Your task to perform on an android device: Search for a new lawnmower on Lowes. Image 0: 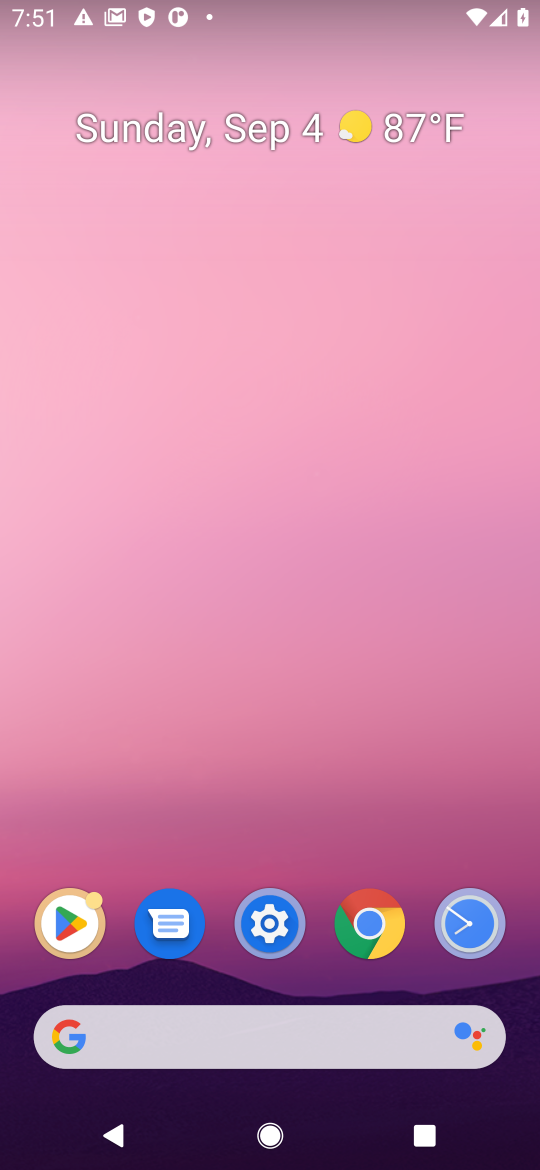
Step 0: press home button
Your task to perform on an android device: Search for a new lawnmower on Lowes. Image 1: 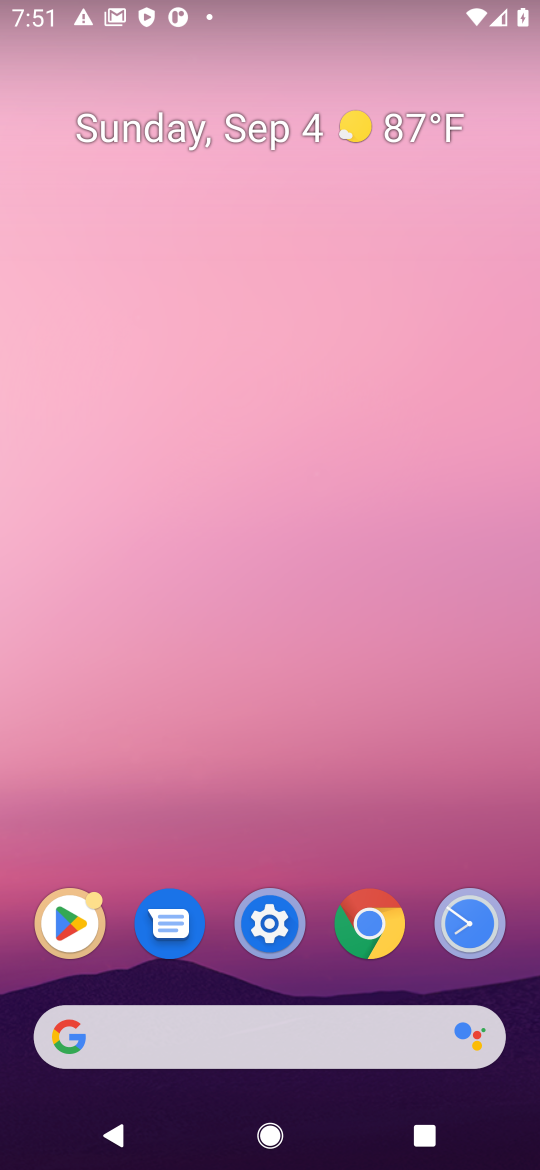
Step 1: click (420, 1027)
Your task to perform on an android device: Search for a new lawnmower on Lowes. Image 2: 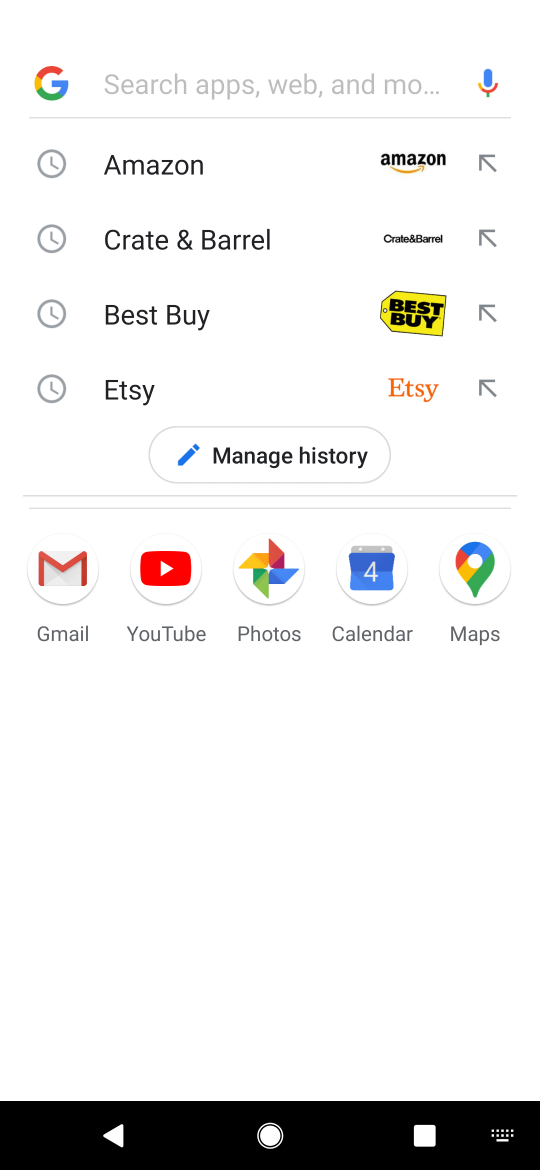
Step 2: press enter
Your task to perform on an android device: Search for a new lawnmower on Lowes. Image 3: 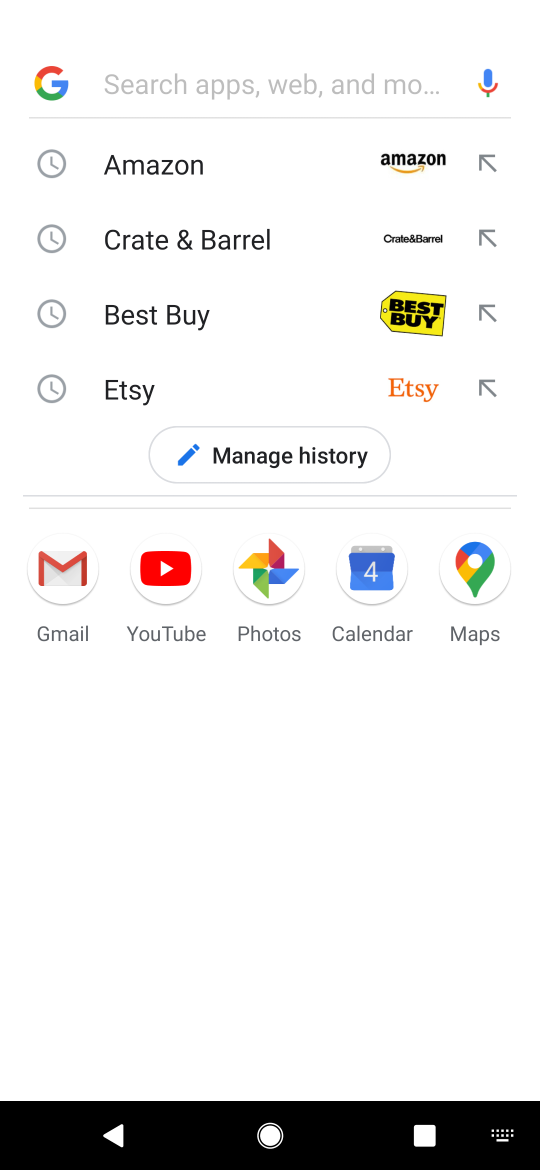
Step 3: type "lowes"
Your task to perform on an android device: Search for a new lawnmower on Lowes. Image 4: 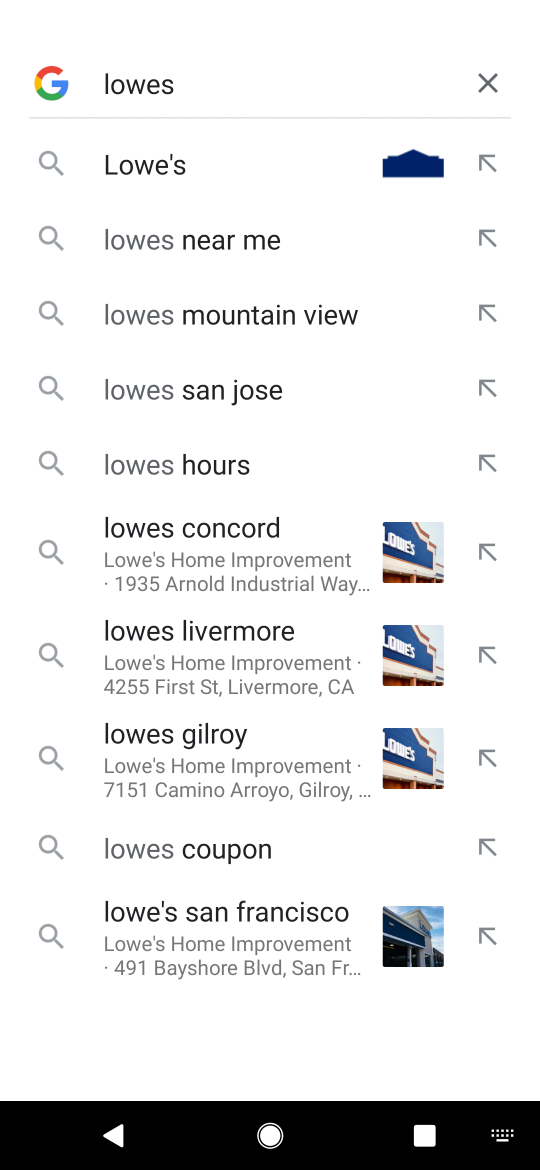
Step 4: click (161, 151)
Your task to perform on an android device: Search for a new lawnmower on Lowes. Image 5: 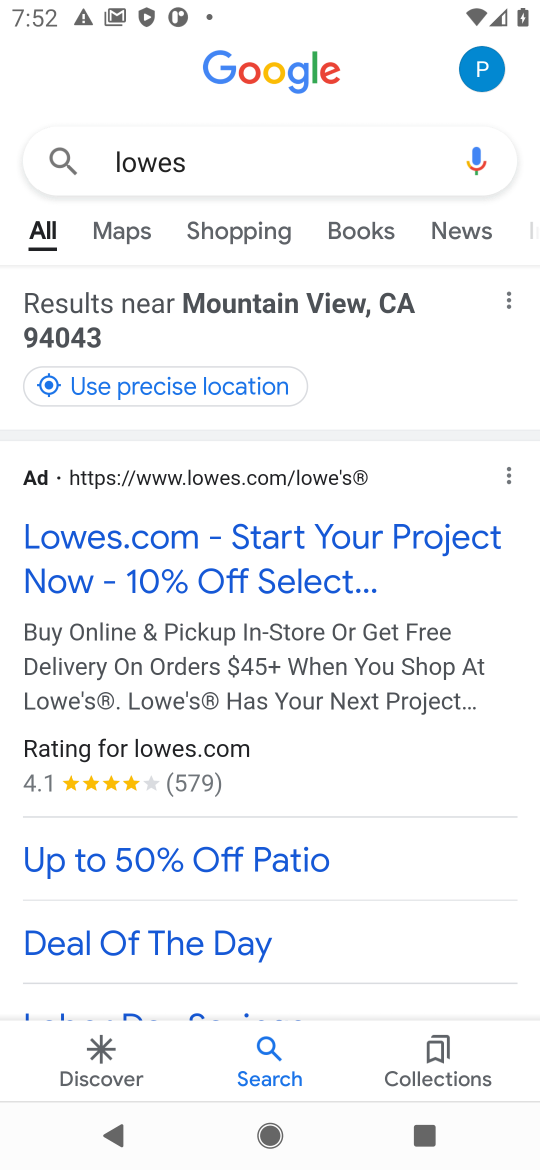
Step 5: click (211, 548)
Your task to perform on an android device: Search for a new lawnmower on Lowes. Image 6: 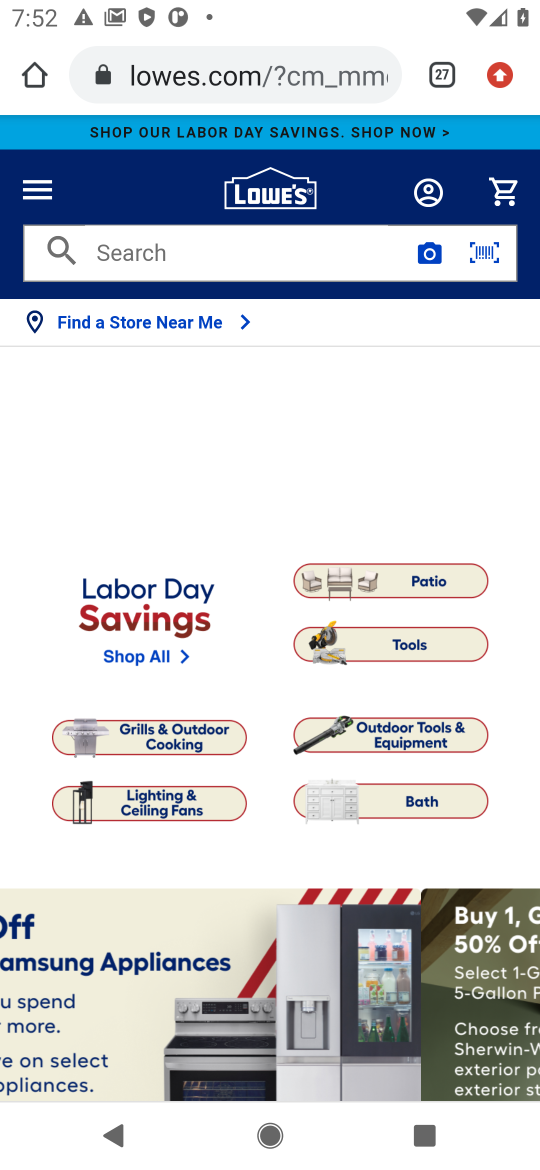
Step 6: click (160, 242)
Your task to perform on an android device: Search for a new lawnmower on Lowes. Image 7: 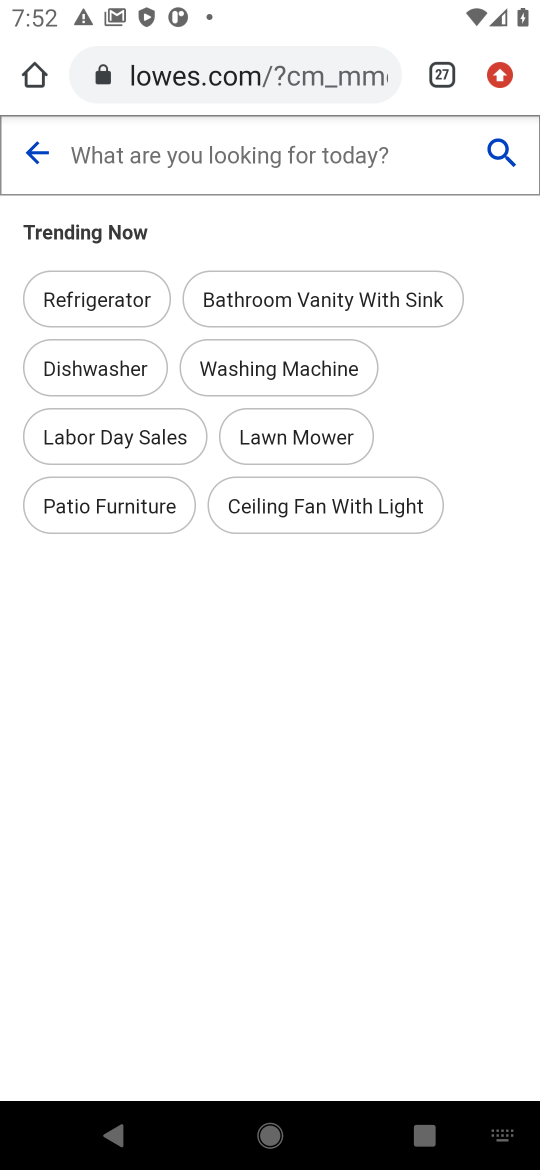
Step 7: press enter
Your task to perform on an android device: Search for a new lawnmower on Lowes. Image 8: 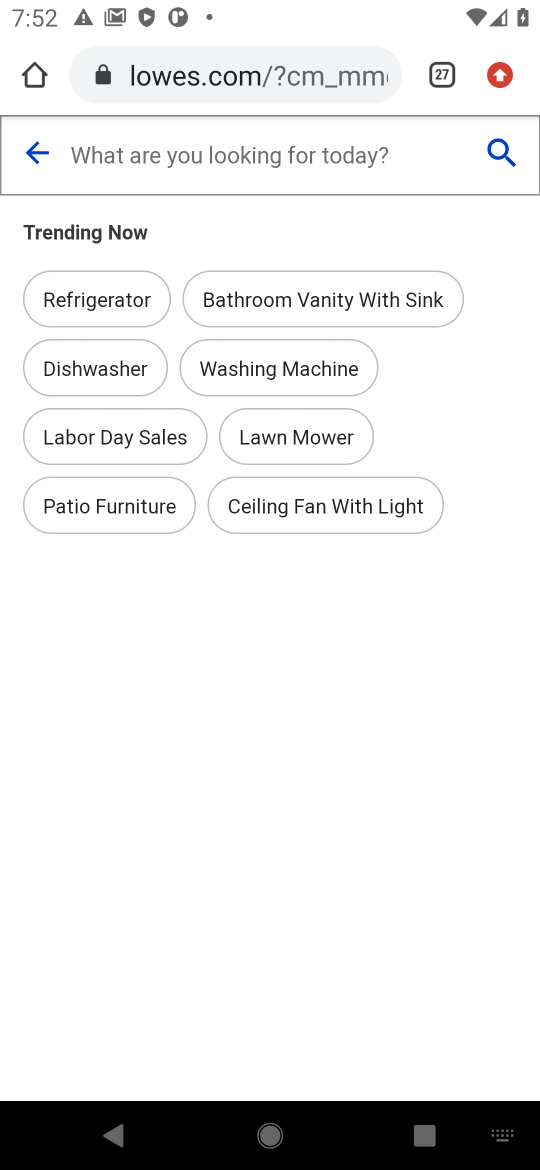
Step 8: type "lawnmower"
Your task to perform on an android device: Search for a new lawnmower on Lowes. Image 9: 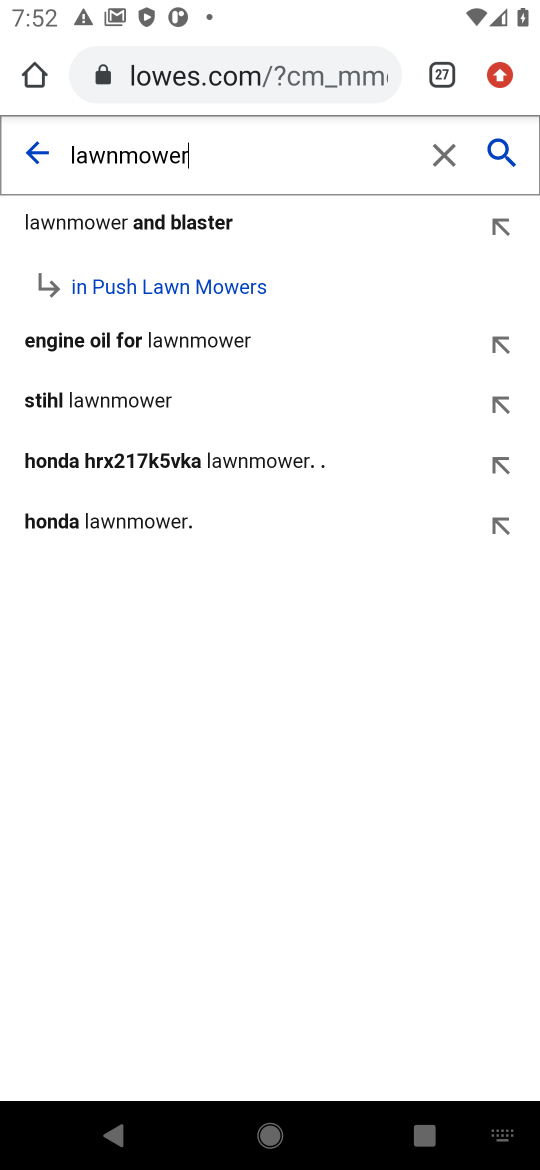
Step 9: click (497, 141)
Your task to perform on an android device: Search for a new lawnmower on Lowes. Image 10: 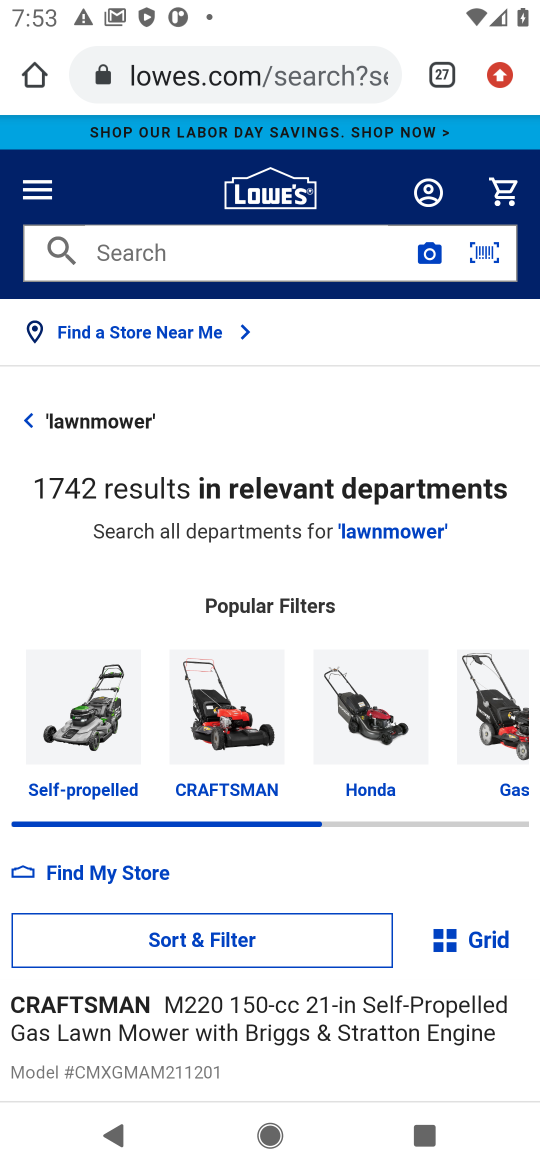
Step 10: task complete